Your task to perform on an android device: move an email to a new category in the gmail app Image 0: 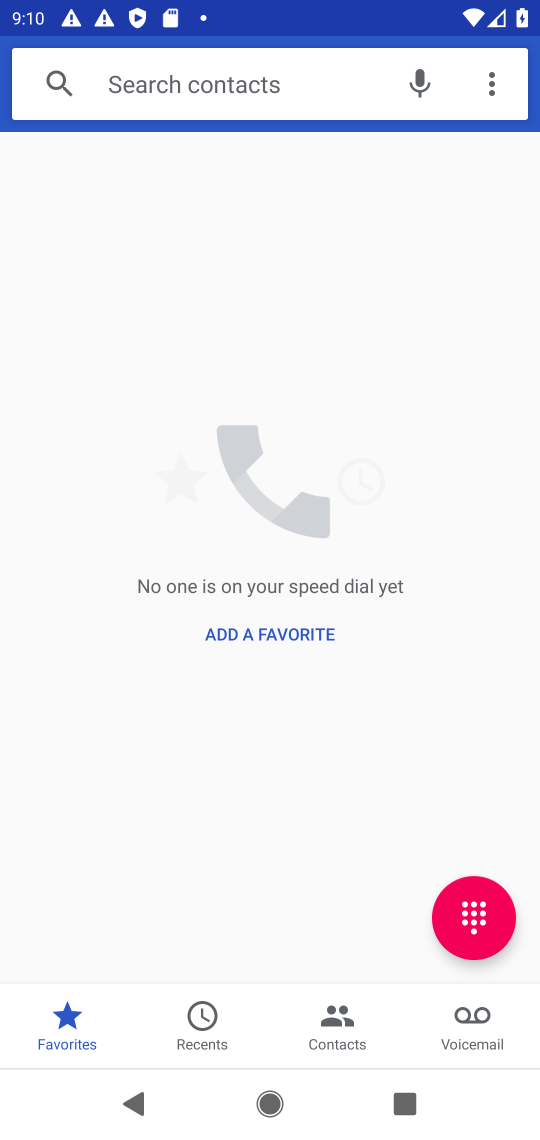
Step 0: press home button
Your task to perform on an android device: move an email to a new category in the gmail app Image 1: 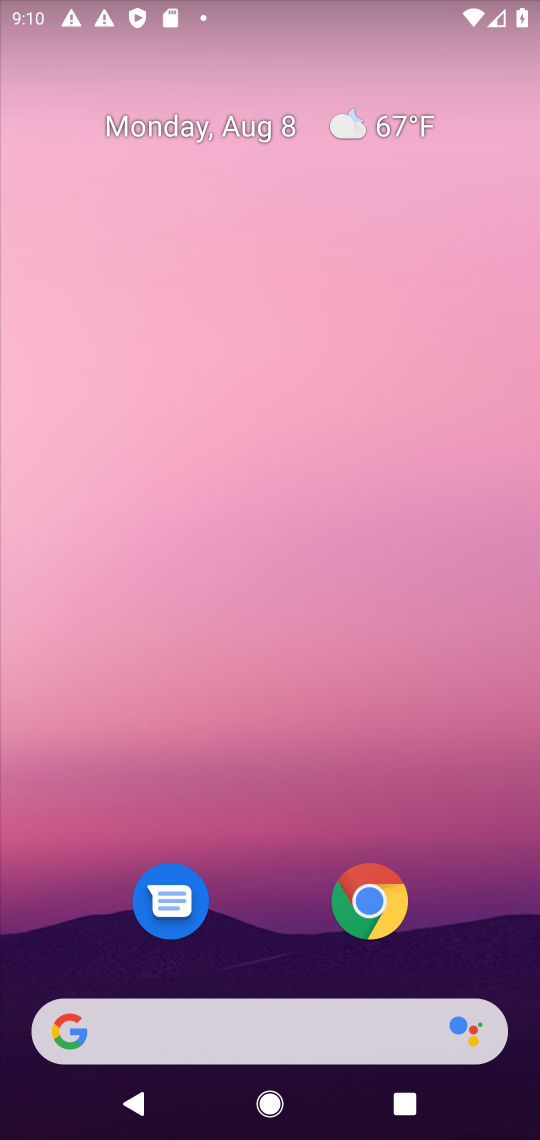
Step 1: drag from (241, 838) to (96, 80)
Your task to perform on an android device: move an email to a new category in the gmail app Image 2: 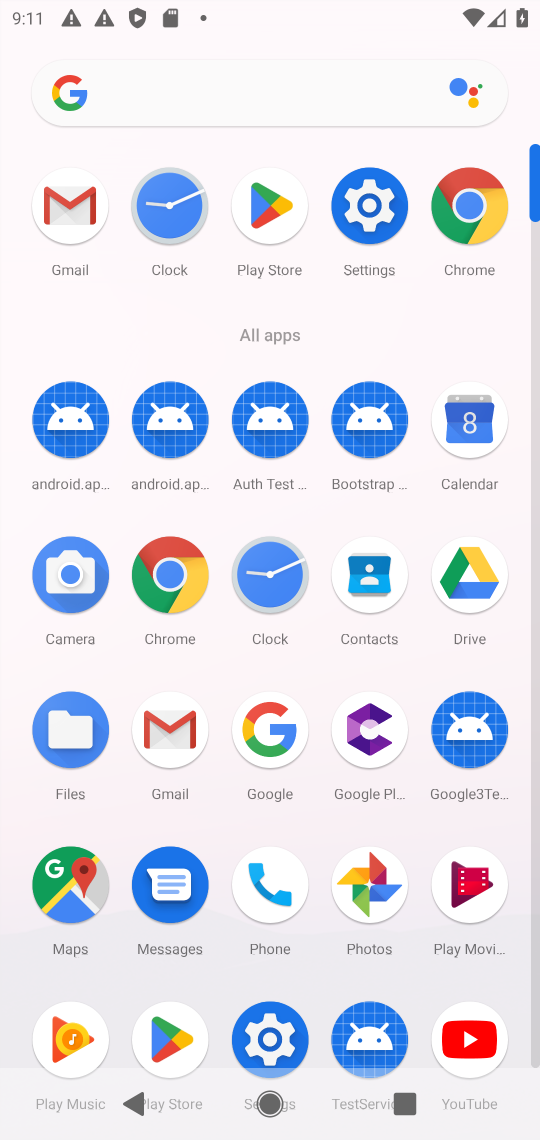
Step 2: click (161, 730)
Your task to perform on an android device: move an email to a new category in the gmail app Image 3: 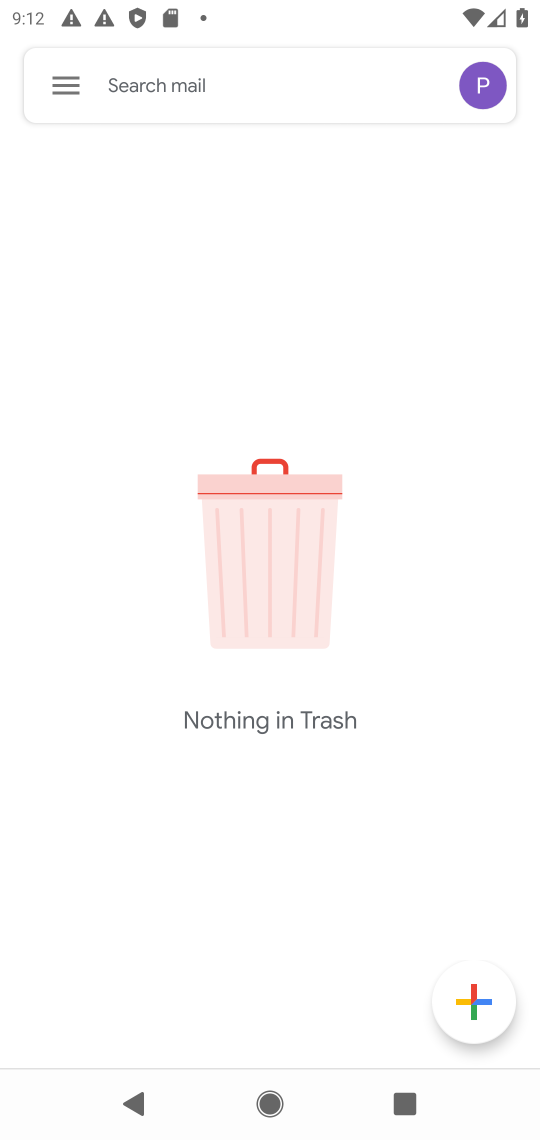
Step 3: click (59, 89)
Your task to perform on an android device: move an email to a new category in the gmail app Image 4: 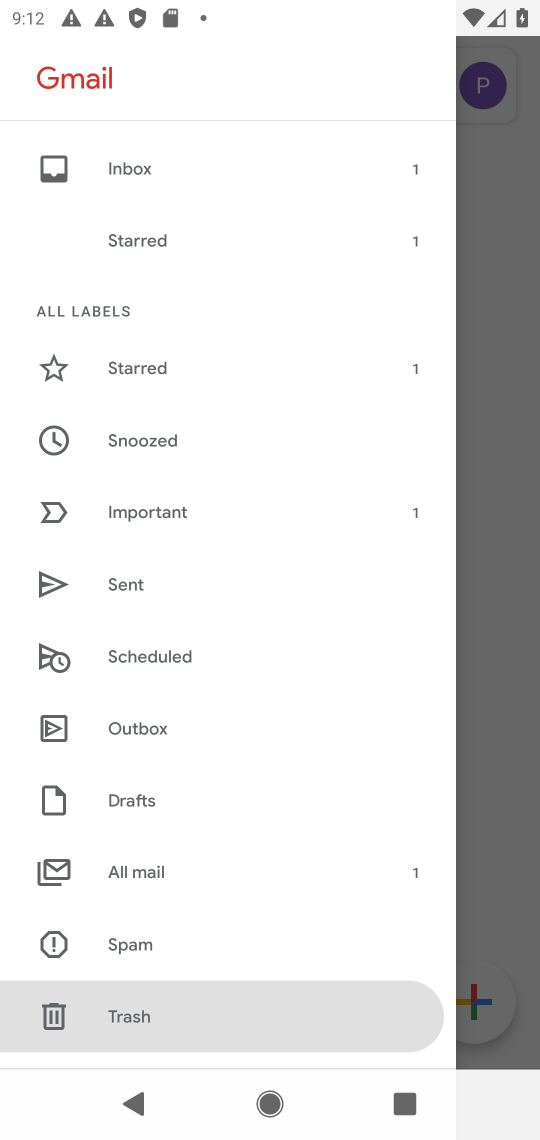
Step 4: click (180, 857)
Your task to perform on an android device: move an email to a new category in the gmail app Image 5: 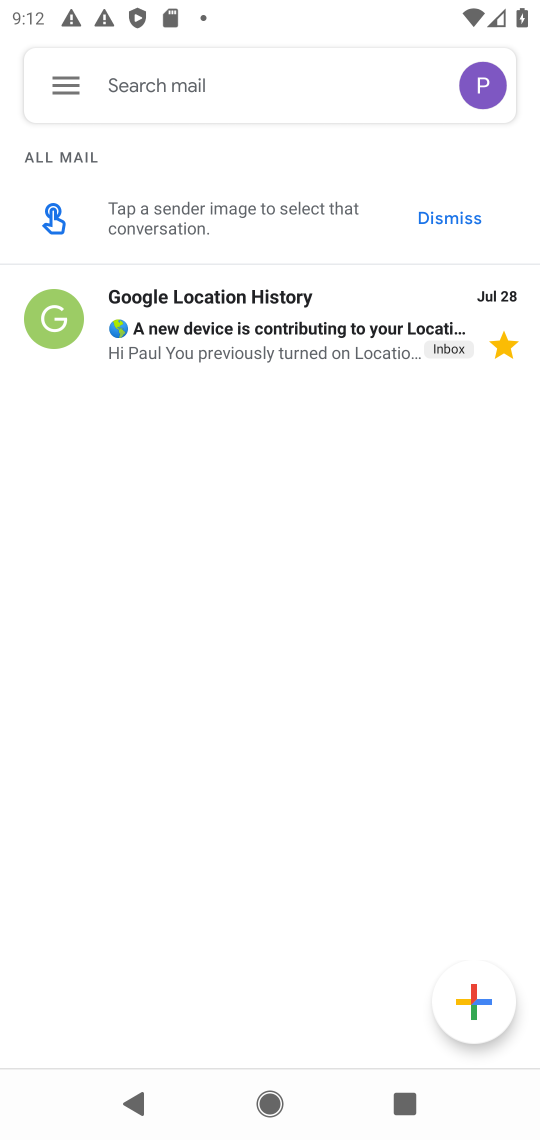
Step 5: click (282, 345)
Your task to perform on an android device: move an email to a new category in the gmail app Image 6: 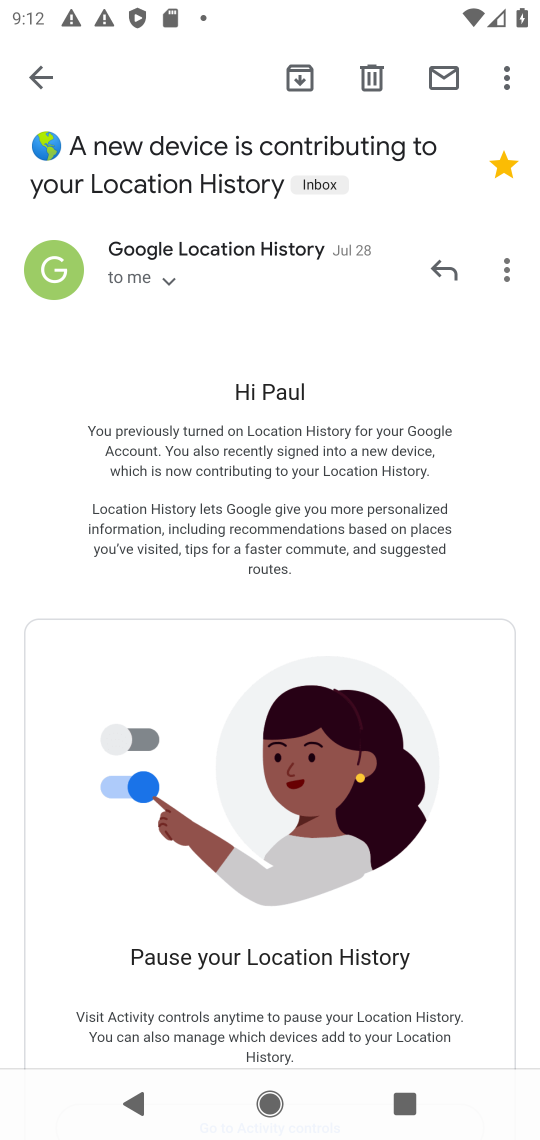
Step 6: click (507, 74)
Your task to perform on an android device: move an email to a new category in the gmail app Image 7: 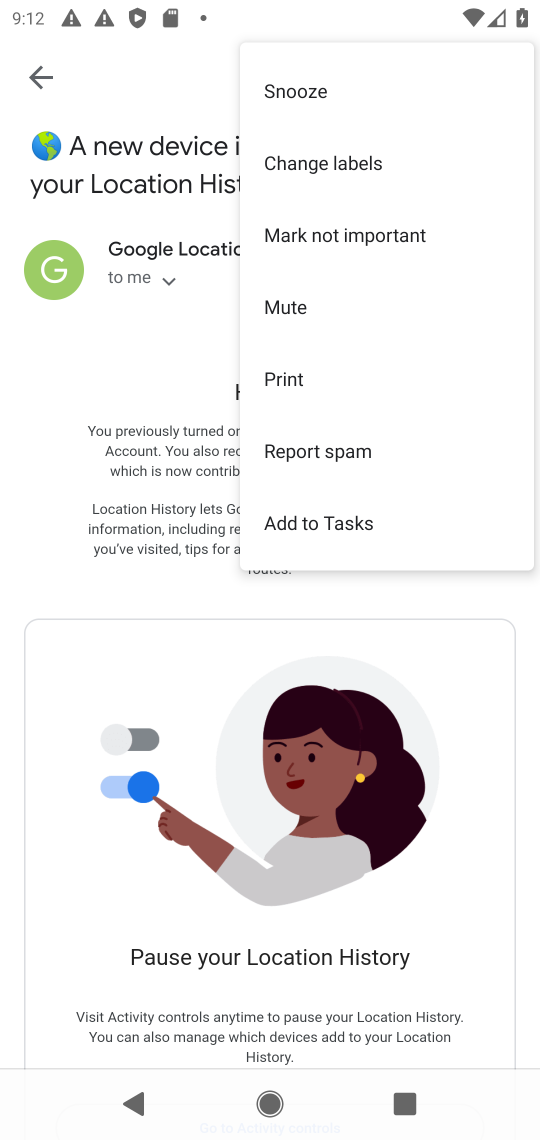
Step 7: click (287, 165)
Your task to perform on an android device: move an email to a new category in the gmail app Image 8: 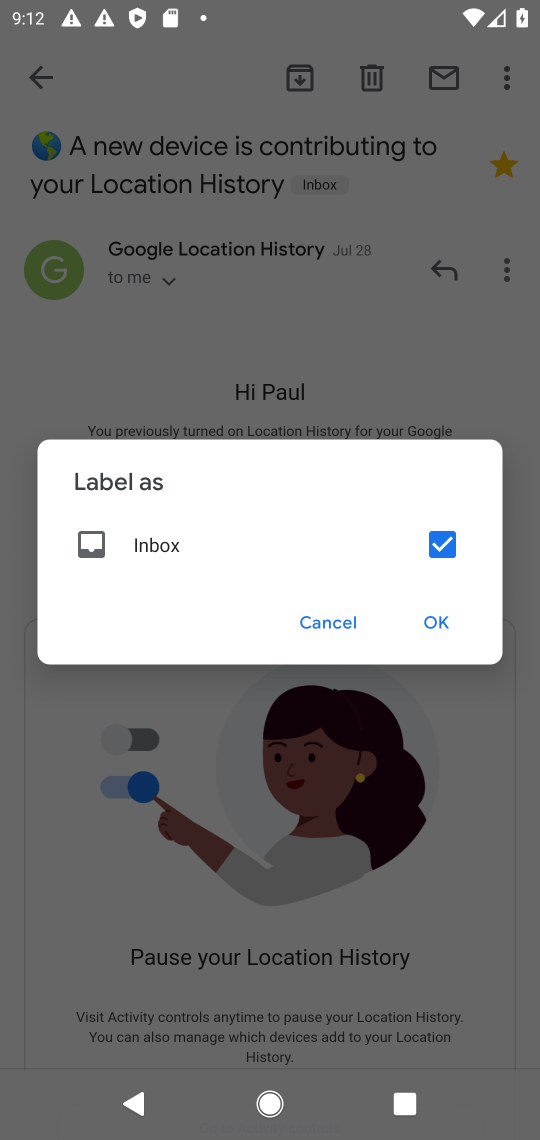
Step 8: click (443, 548)
Your task to perform on an android device: move an email to a new category in the gmail app Image 9: 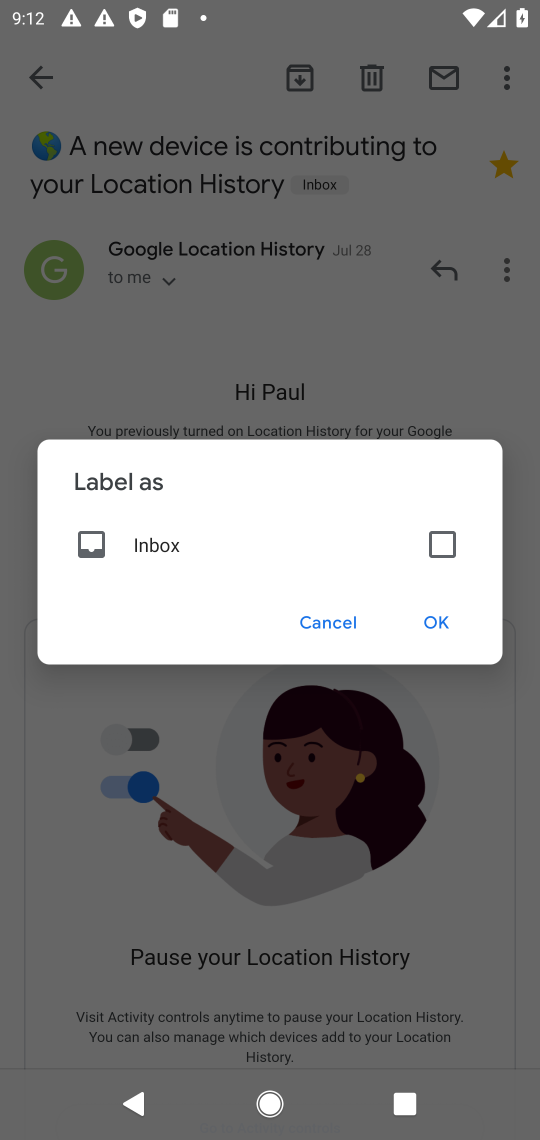
Step 9: click (439, 617)
Your task to perform on an android device: move an email to a new category in the gmail app Image 10: 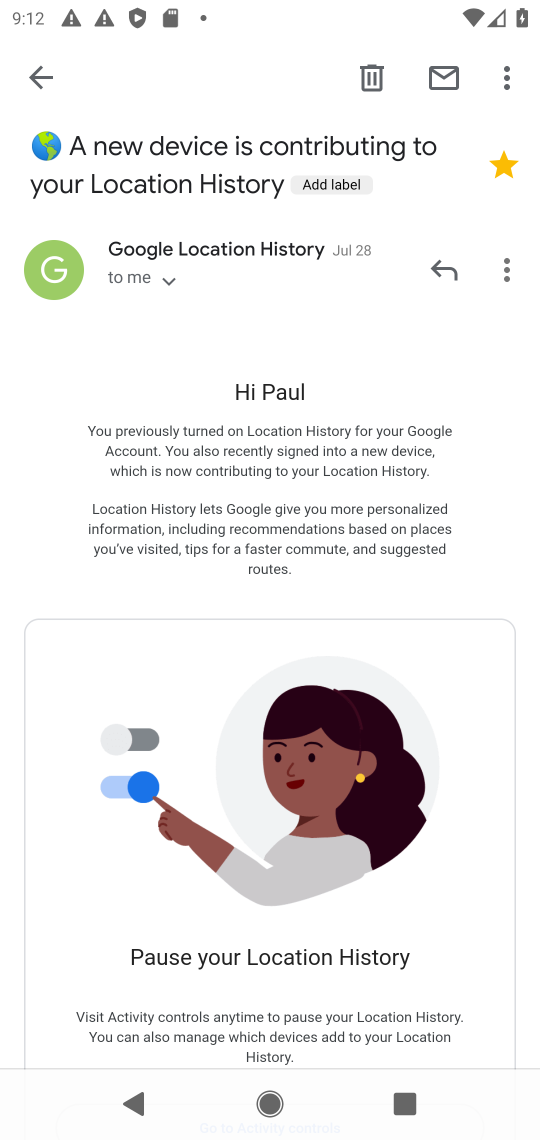
Step 10: task complete